Your task to perform on an android device: Open Android settings Image 0: 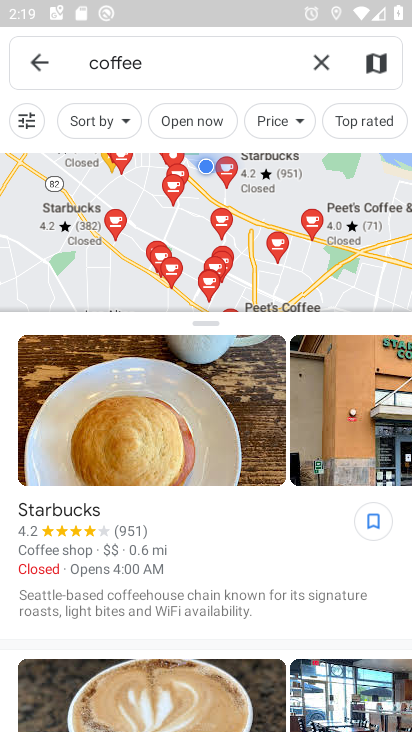
Step 0: press home button
Your task to perform on an android device: Open Android settings Image 1: 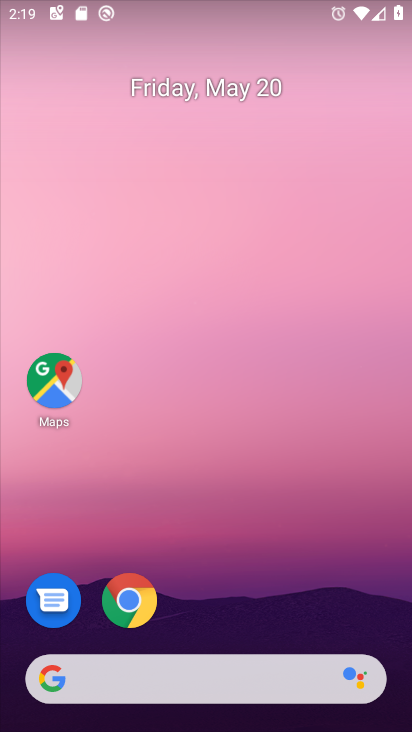
Step 1: drag from (193, 636) to (248, 0)
Your task to perform on an android device: Open Android settings Image 2: 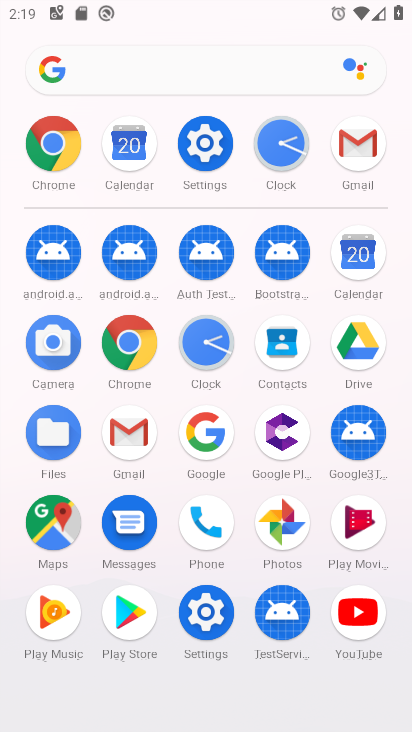
Step 2: click (200, 615)
Your task to perform on an android device: Open Android settings Image 3: 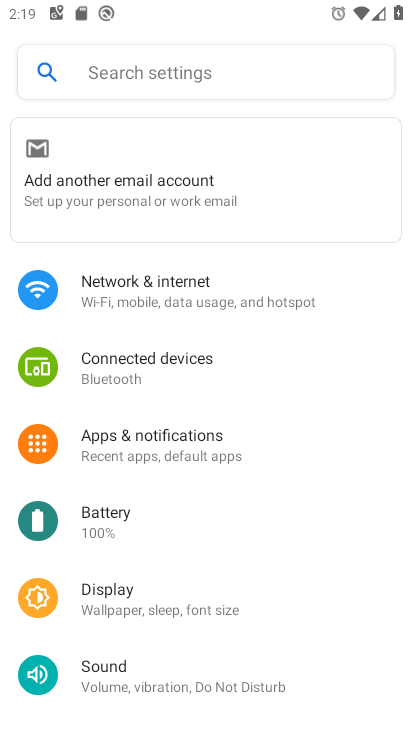
Step 3: drag from (178, 553) to (312, 292)
Your task to perform on an android device: Open Android settings Image 4: 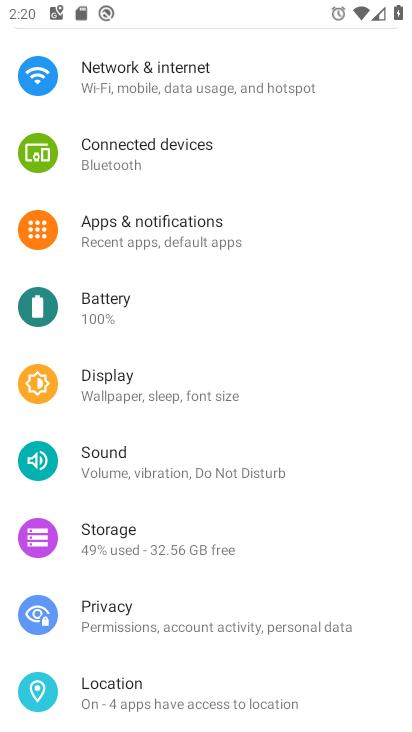
Step 4: drag from (168, 557) to (295, 65)
Your task to perform on an android device: Open Android settings Image 5: 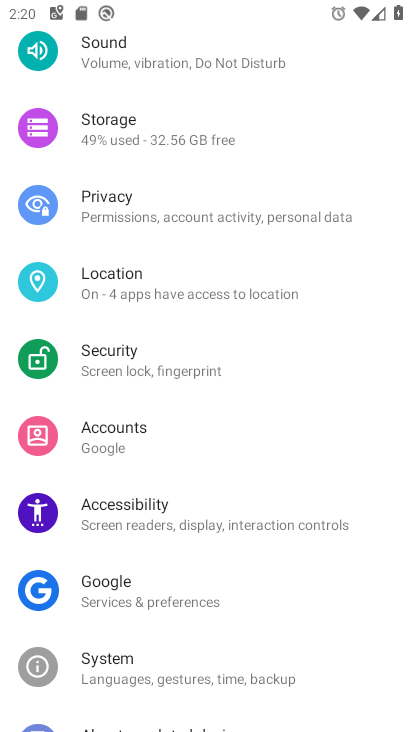
Step 5: drag from (281, 561) to (304, 138)
Your task to perform on an android device: Open Android settings Image 6: 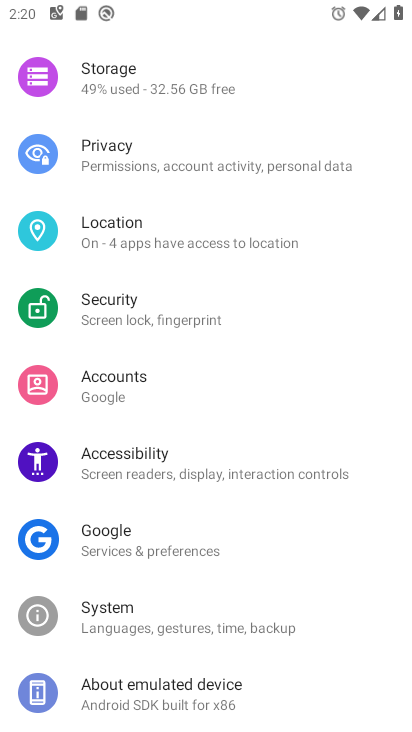
Step 6: click (151, 696)
Your task to perform on an android device: Open Android settings Image 7: 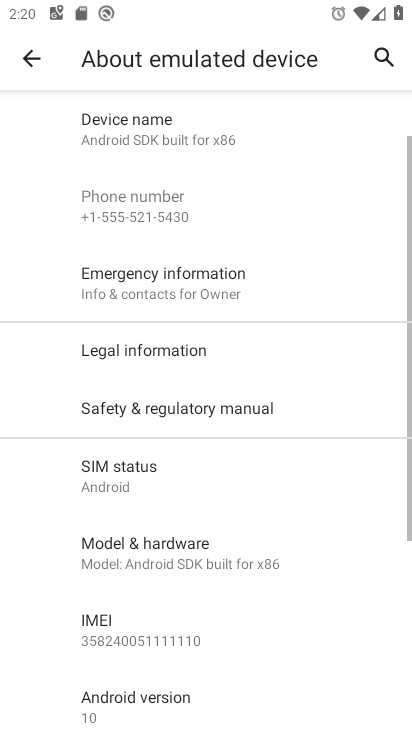
Step 7: drag from (179, 597) to (200, 404)
Your task to perform on an android device: Open Android settings Image 8: 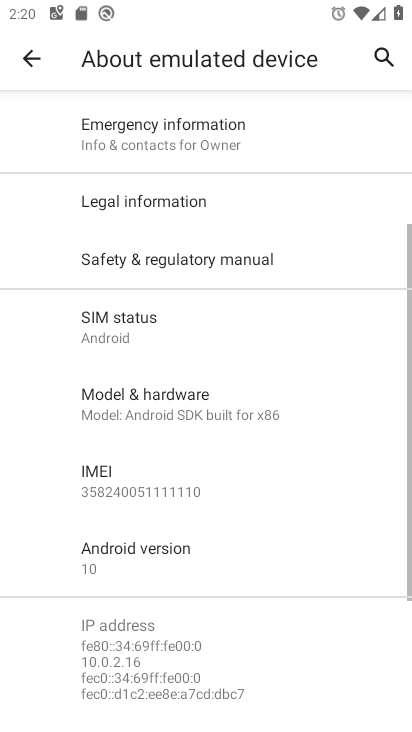
Step 8: click (164, 571)
Your task to perform on an android device: Open Android settings Image 9: 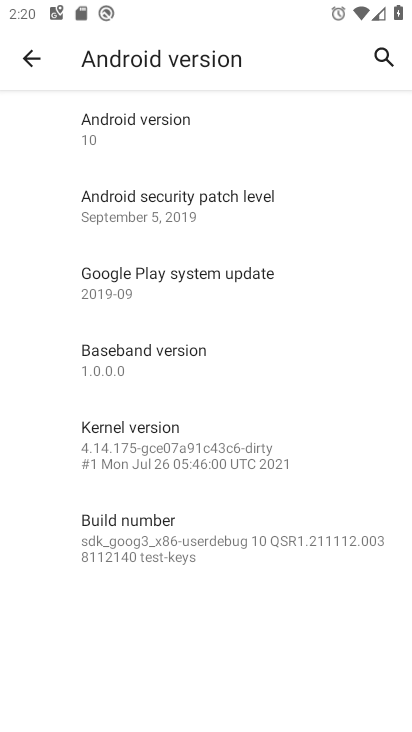
Step 9: task complete